Your task to perform on an android device: Open Chrome and go to settings Image 0: 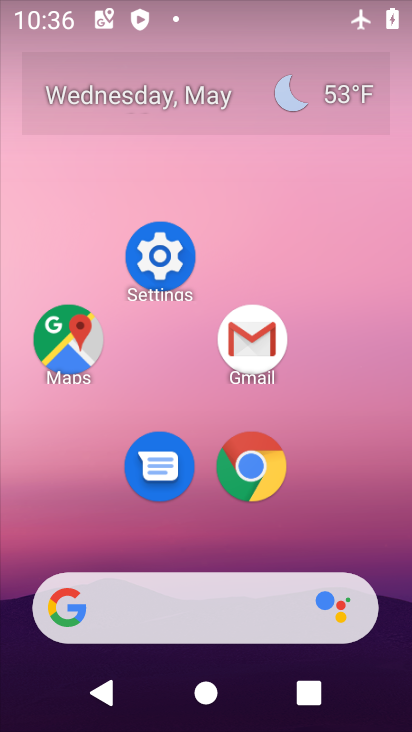
Step 0: click (245, 467)
Your task to perform on an android device: Open Chrome and go to settings Image 1: 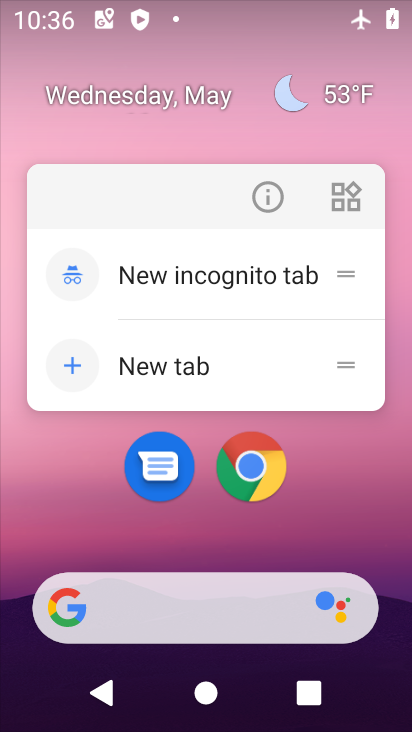
Step 1: click (254, 459)
Your task to perform on an android device: Open Chrome and go to settings Image 2: 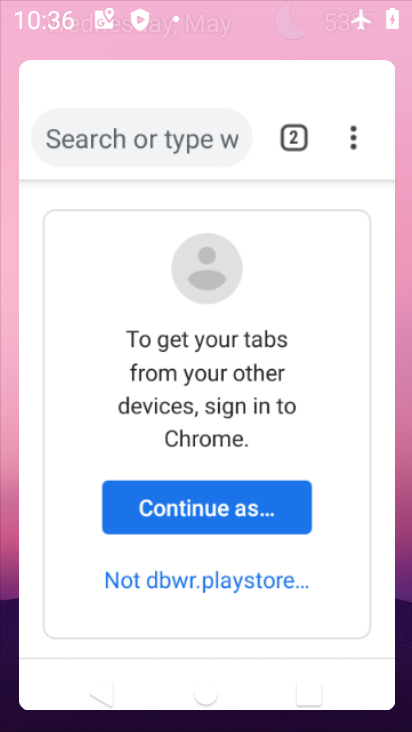
Step 2: click (262, 195)
Your task to perform on an android device: Open Chrome and go to settings Image 3: 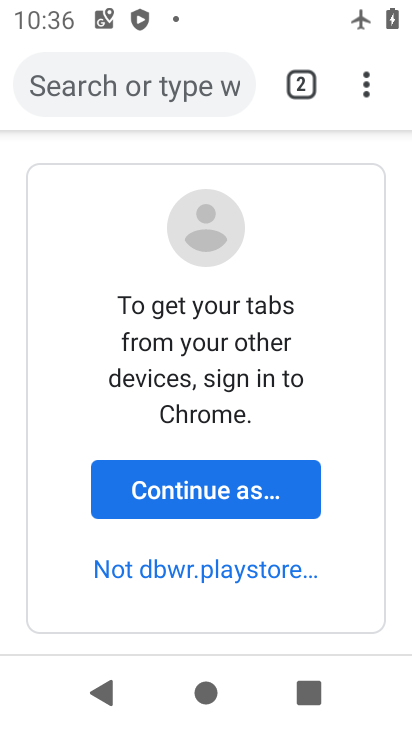
Step 3: click (364, 67)
Your task to perform on an android device: Open Chrome and go to settings Image 4: 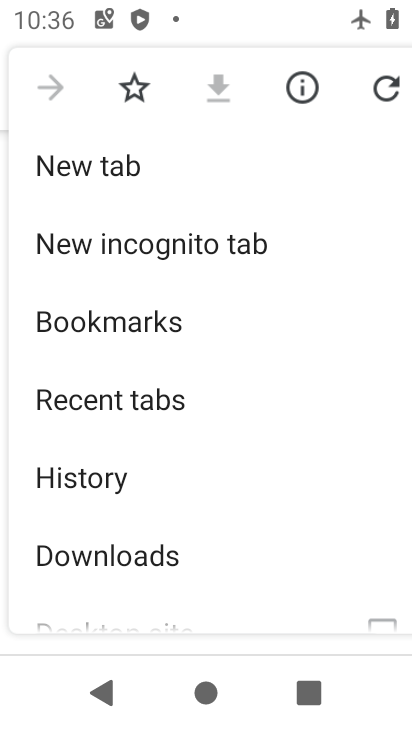
Step 4: drag from (182, 472) to (302, 79)
Your task to perform on an android device: Open Chrome and go to settings Image 5: 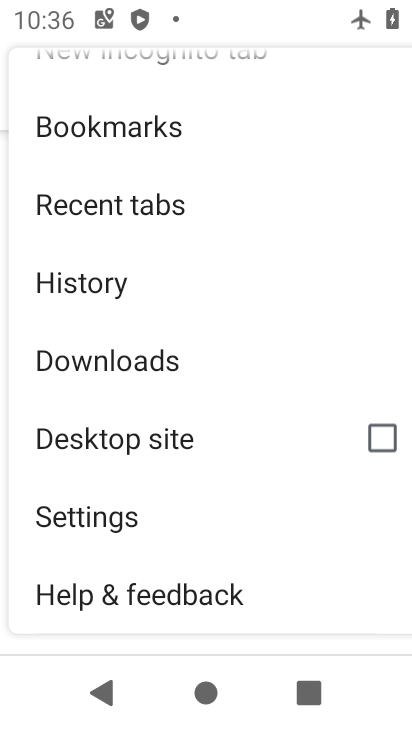
Step 5: click (136, 506)
Your task to perform on an android device: Open Chrome and go to settings Image 6: 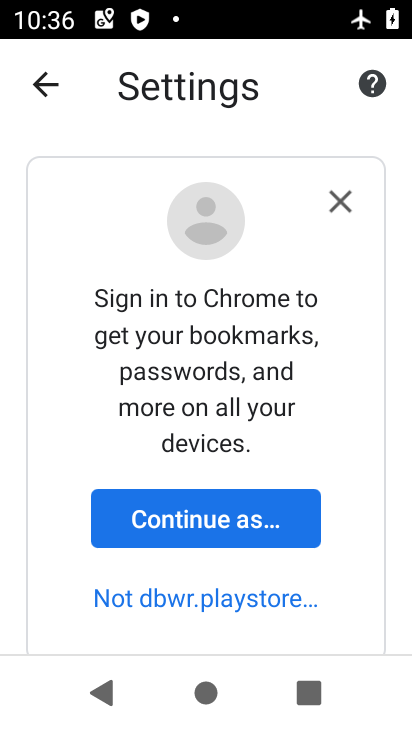
Step 6: task complete